Your task to perform on an android device: clear history in the chrome app Image 0: 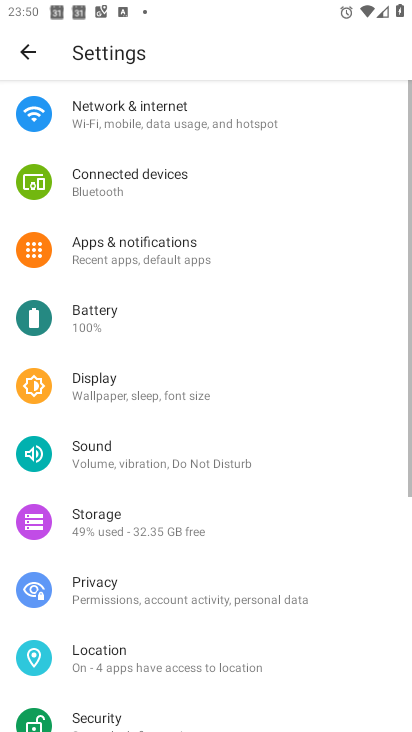
Step 0: press home button
Your task to perform on an android device: clear history in the chrome app Image 1: 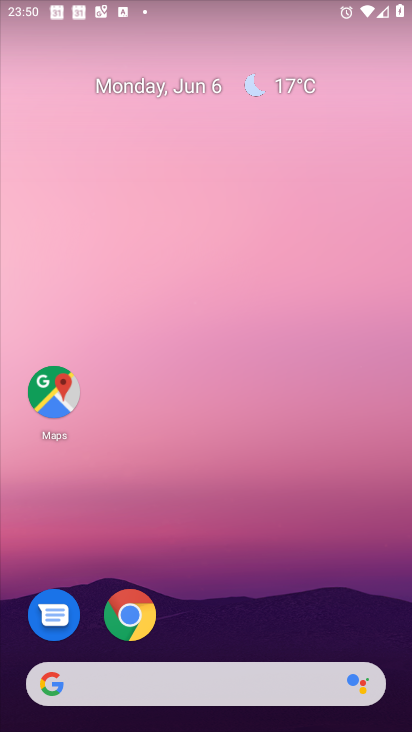
Step 1: click (130, 611)
Your task to perform on an android device: clear history in the chrome app Image 2: 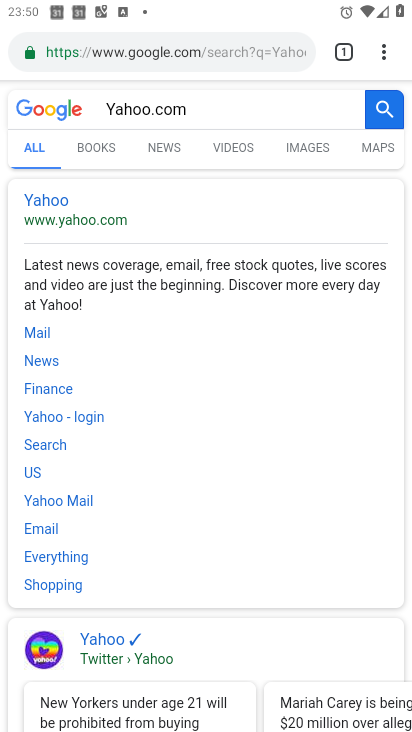
Step 2: click (378, 43)
Your task to perform on an android device: clear history in the chrome app Image 3: 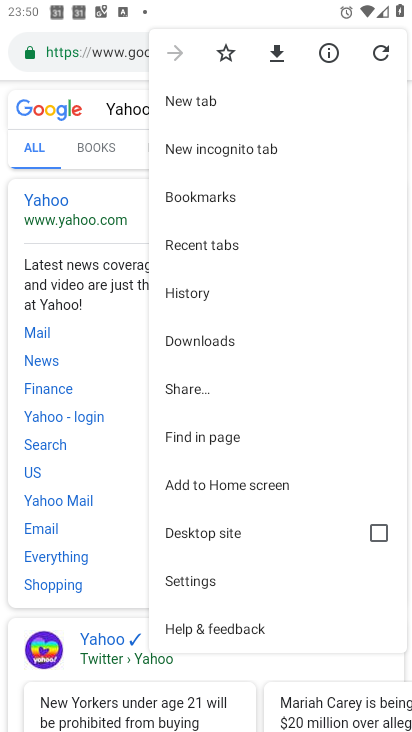
Step 3: click (188, 290)
Your task to perform on an android device: clear history in the chrome app Image 4: 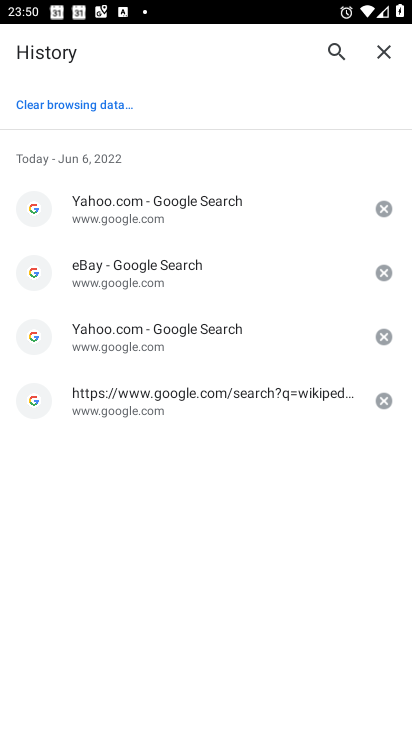
Step 4: click (94, 105)
Your task to perform on an android device: clear history in the chrome app Image 5: 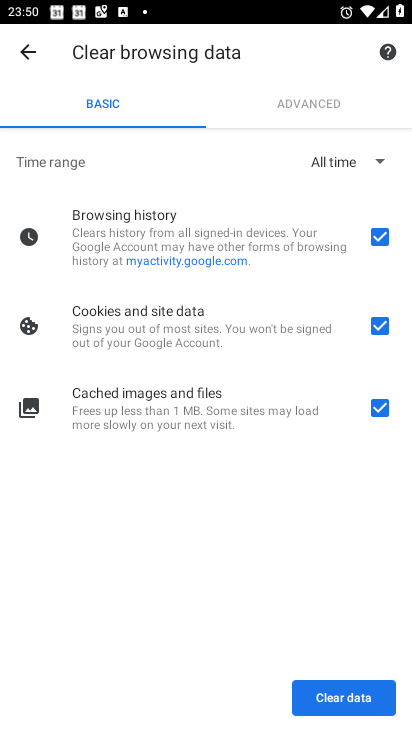
Step 5: click (330, 703)
Your task to perform on an android device: clear history in the chrome app Image 6: 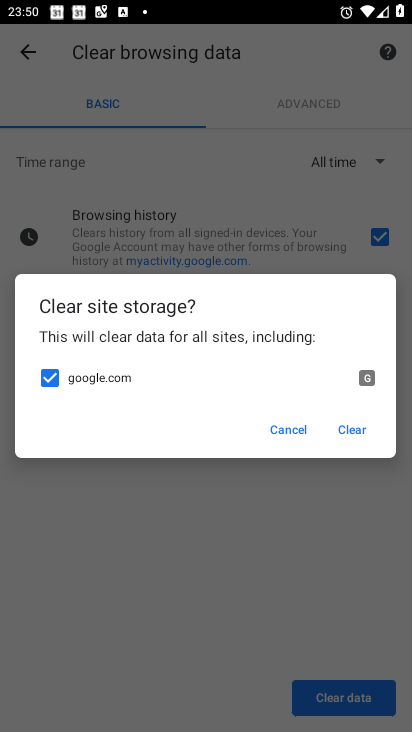
Step 6: click (359, 426)
Your task to perform on an android device: clear history in the chrome app Image 7: 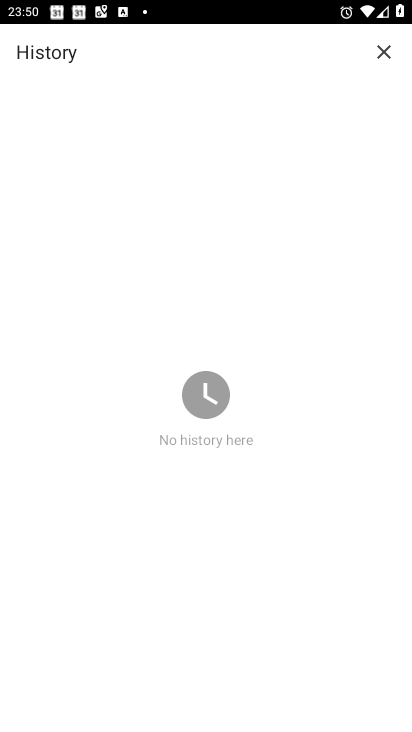
Step 7: task complete